Your task to perform on an android device: Search for seafood restaurants on Google Maps Image 0: 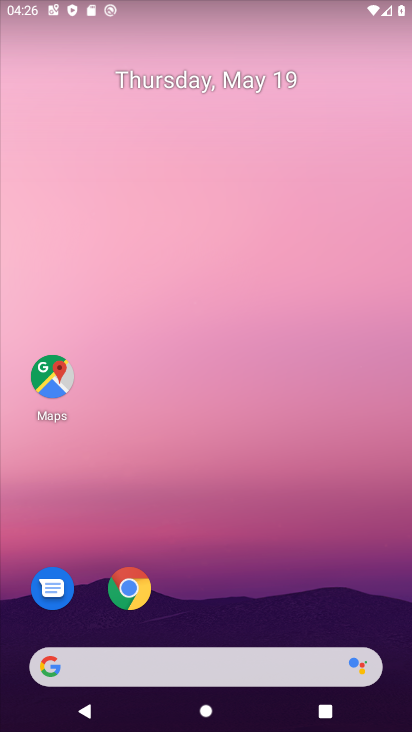
Step 0: click (45, 358)
Your task to perform on an android device: Search for seafood restaurants on Google Maps Image 1: 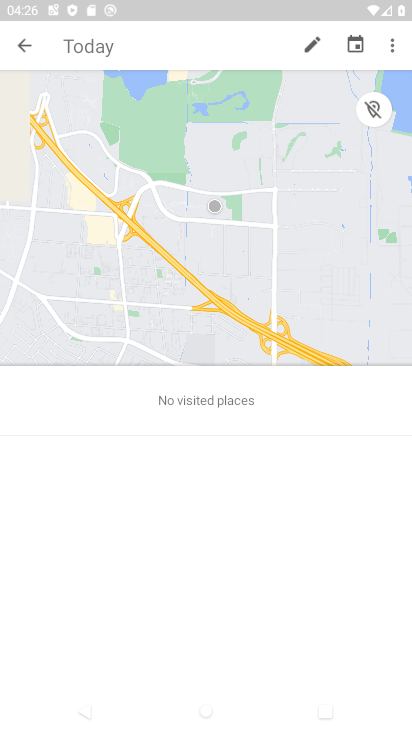
Step 1: click (26, 45)
Your task to perform on an android device: Search for seafood restaurants on Google Maps Image 2: 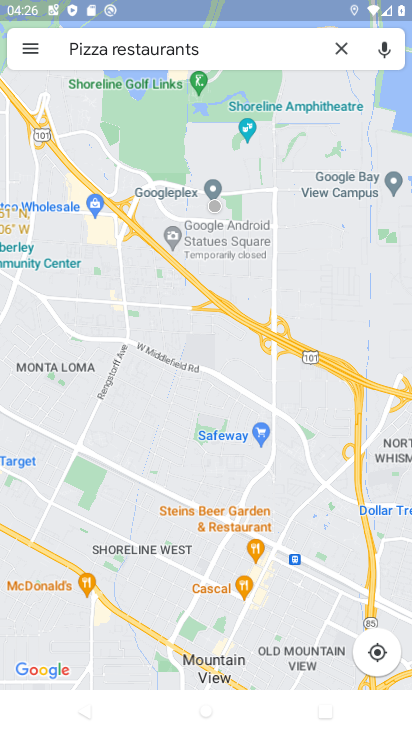
Step 2: click (94, 44)
Your task to perform on an android device: Search for seafood restaurants on Google Maps Image 3: 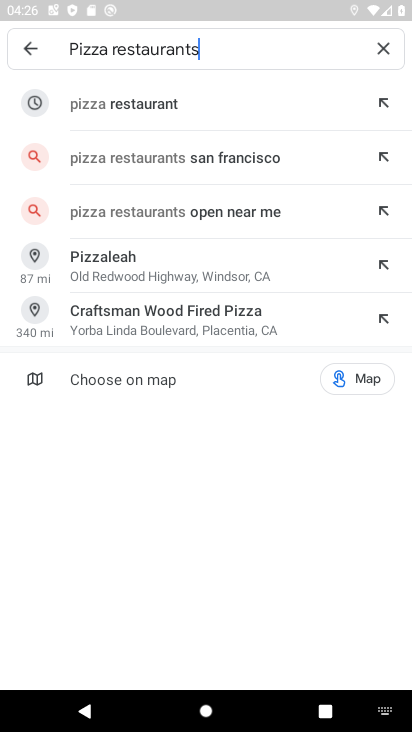
Step 3: click (91, 50)
Your task to perform on an android device: Search for seafood restaurants on Google Maps Image 4: 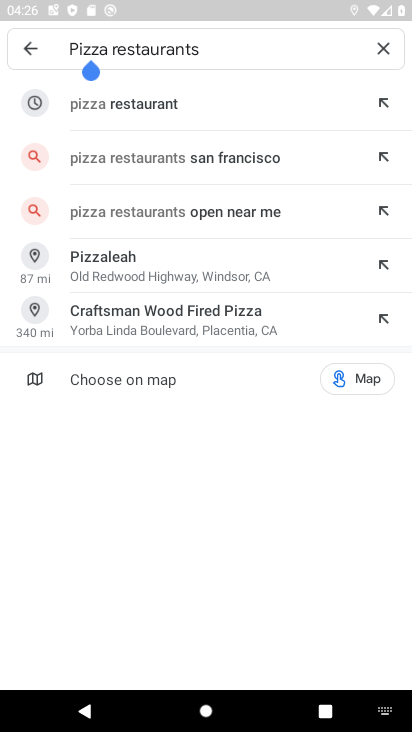
Step 4: click (91, 49)
Your task to perform on an android device: Search for seafood restaurants on Google Maps Image 5: 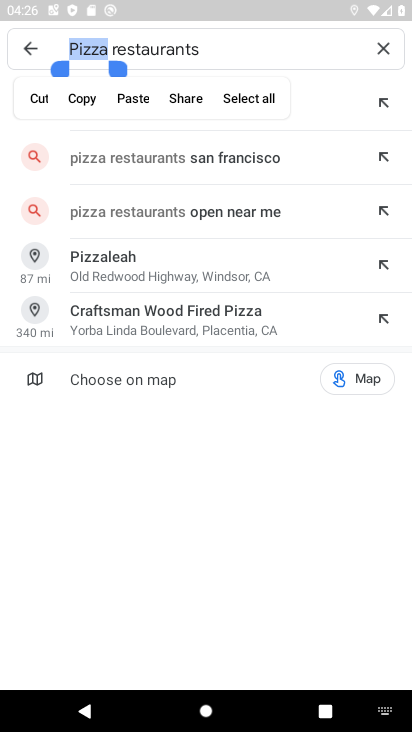
Step 5: type "seafood"
Your task to perform on an android device: Search for seafood restaurants on Google Maps Image 6: 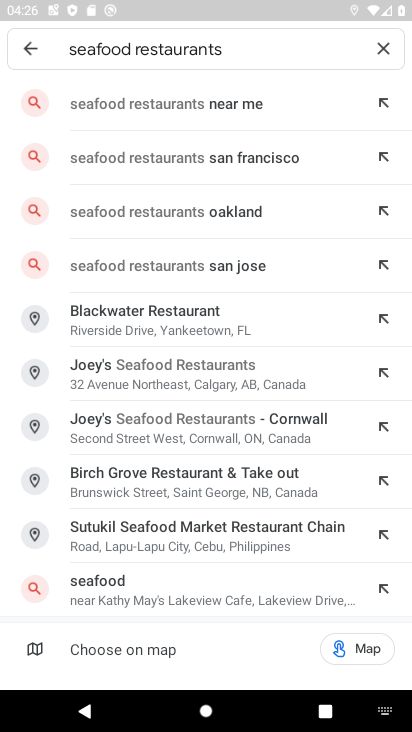
Step 6: click (173, 97)
Your task to perform on an android device: Search for seafood restaurants on Google Maps Image 7: 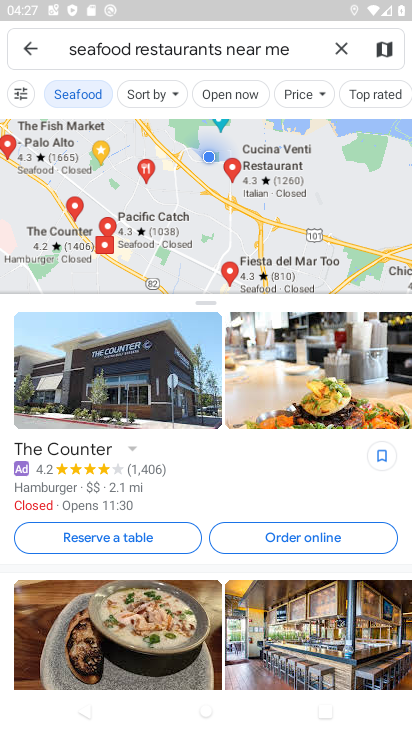
Step 7: task complete